Your task to perform on an android device: Is it going to rain today? Image 0: 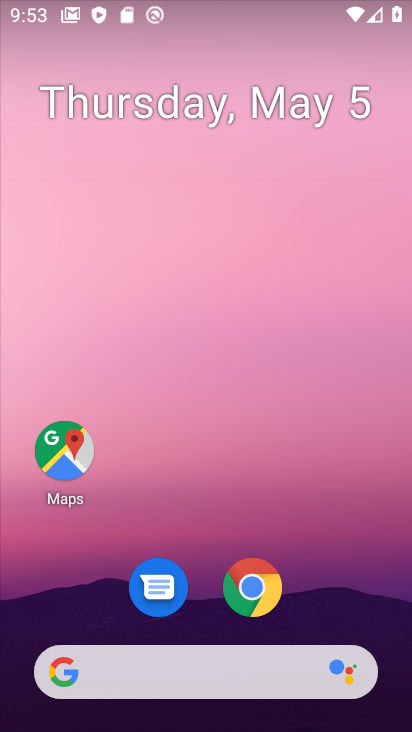
Step 0: drag from (0, 315) to (384, 297)
Your task to perform on an android device: Is it going to rain today? Image 1: 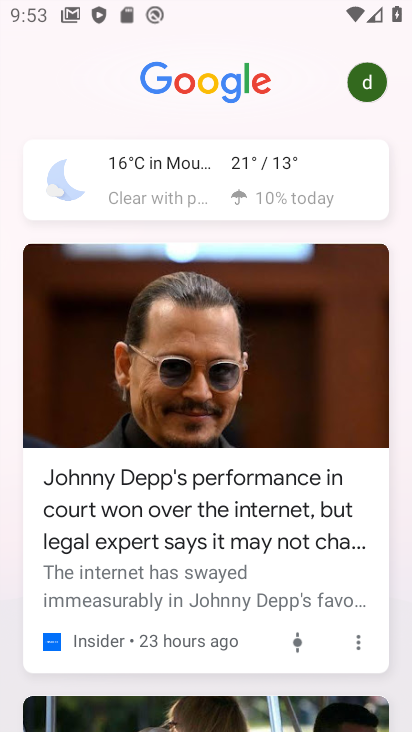
Step 1: click (244, 188)
Your task to perform on an android device: Is it going to rain today? Image 2: 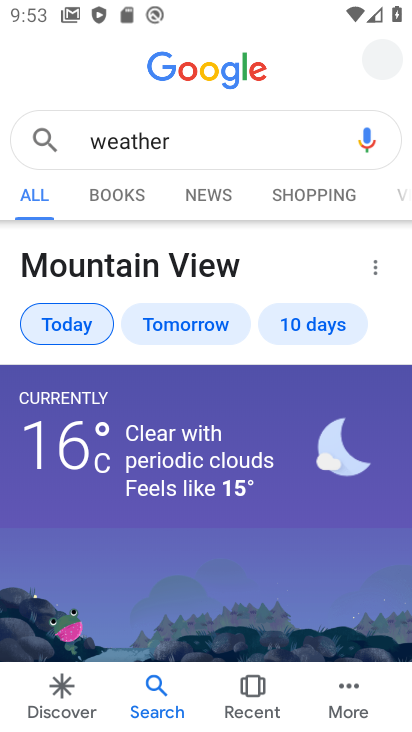
Step 2: drag from (74, 624) to (210, 240)
Your task to perform on an android device: Is it going to rain today? Image 3: 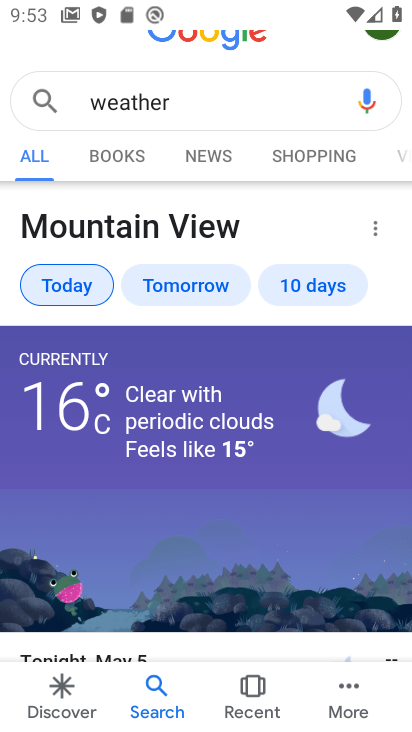
Step 3: drag from (86, 597) to (205, 177)
Your task to perform on an android device: Is it going to rain today? Image 4: 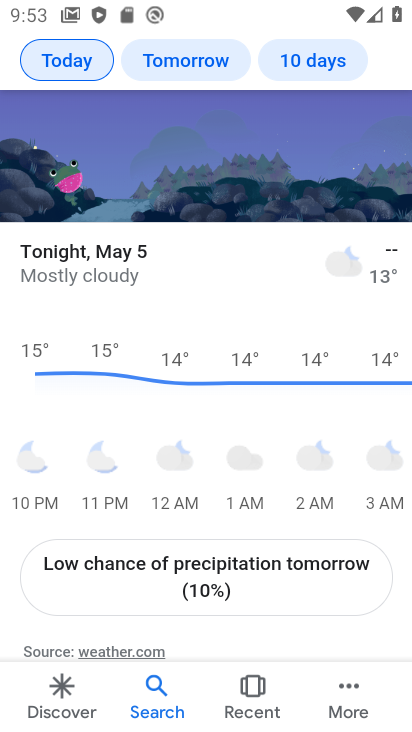
Step 4: click (98, 598)
Your task to perform on an android device: Is it going to rain today? Image 5: 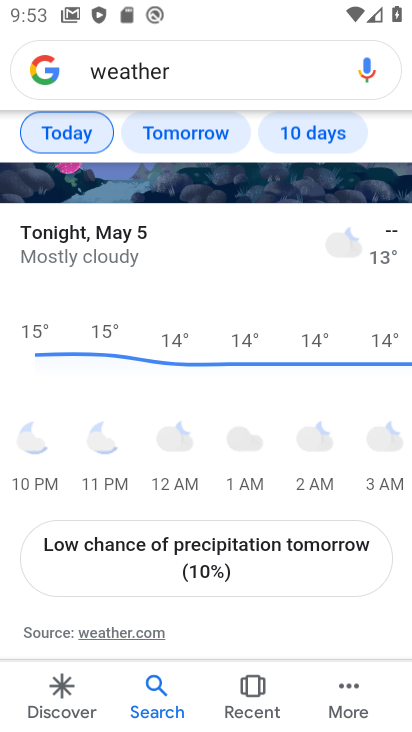
Step 5: task complete